Your task to perform on an android device: open a bookmark in the chrome app Image 0: 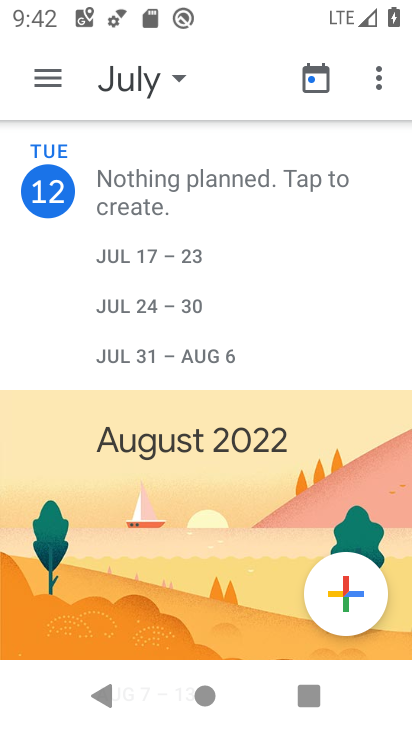
Step 0: click (379, 84)
Your task to perform on an android device: open a bookmark in the chrome app Image 1: 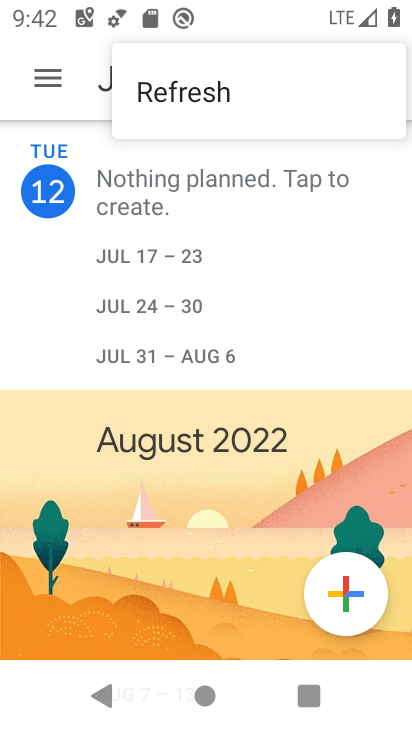
Step 1: press home button
Your task to perform on an android device: open a bookmark in the chrome app Image 2: 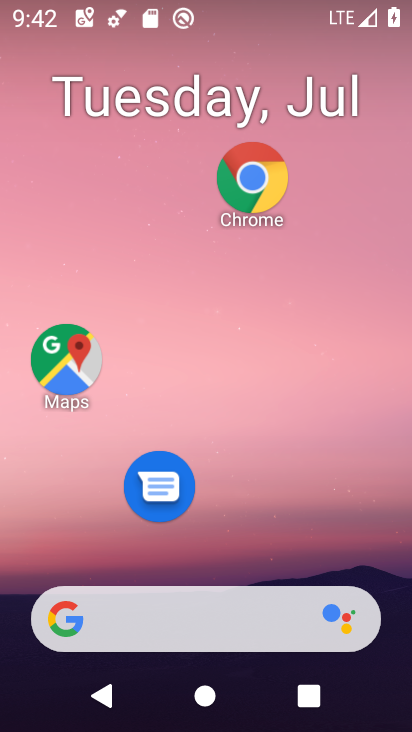
Step 2: drag from (240, 595) to (220, 187)
Your task to perform on an android device: open a bookmark in the chrome app Image 3: 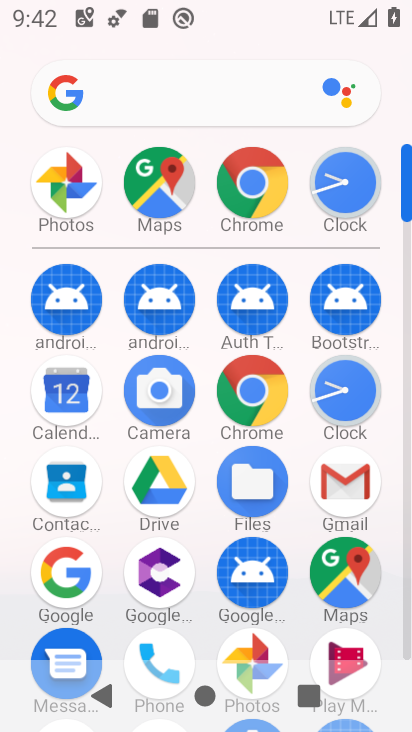
Step 3: click (262, 197)
Your task to perform on an android device: open a bookmark in the chrome app Image 4: 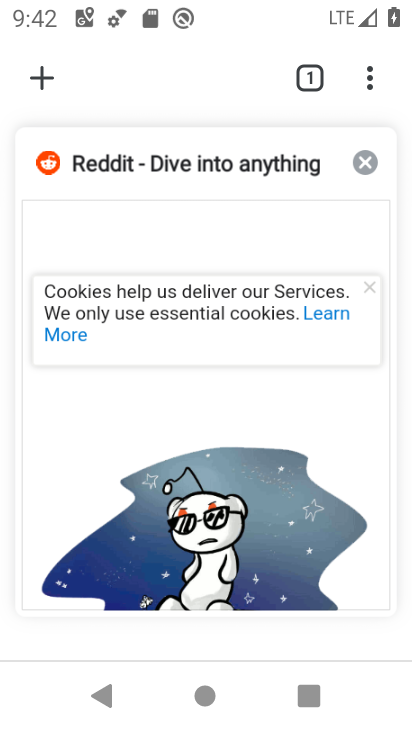
Step 4: click (259, 220)
Your task to perform on an android device: open a bookmark in the chrome app Image 5: 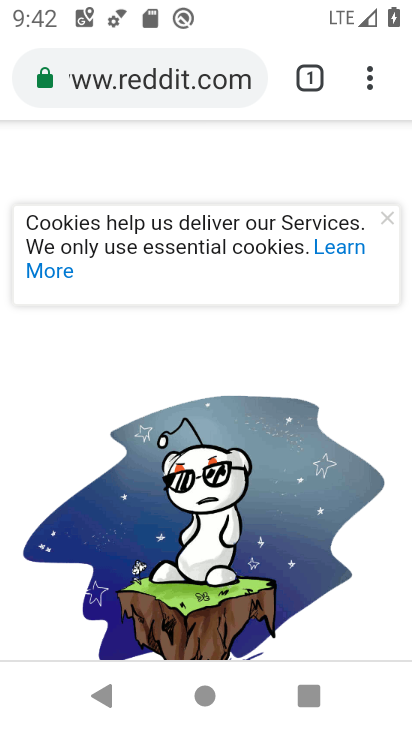
Step 5: click (369, 72)
Your task to perform on an android device: open a bookmark in the chrome app Image 6: 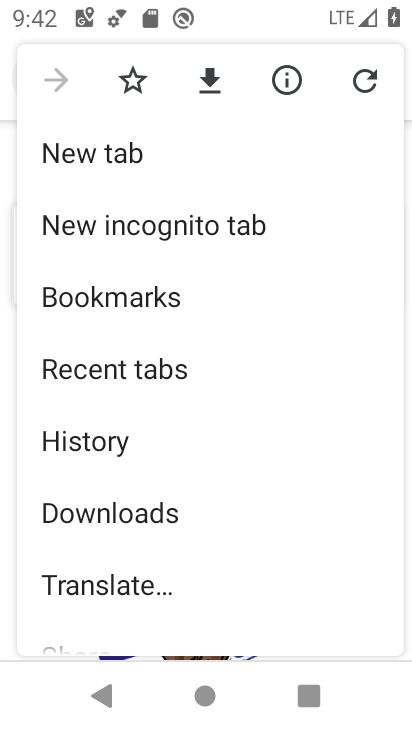
Step 6: click (156, 301)
Your task to perform on an android device: open a bookmark in the chrome app Image 7: 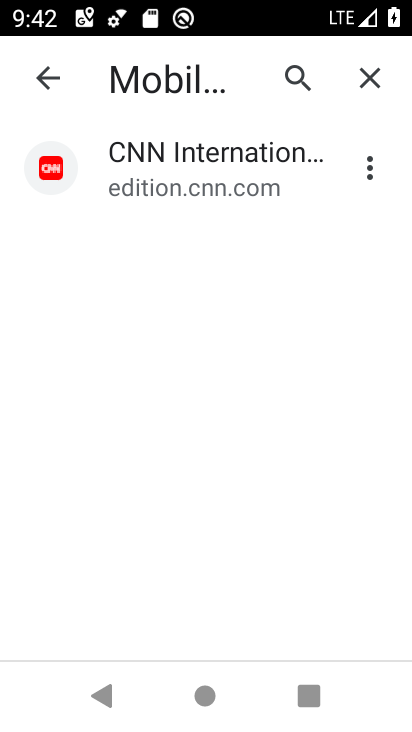
Step 7: click (213, 192)
Your task to perform on an android device: open a bookmark in the chrome app Image 8: 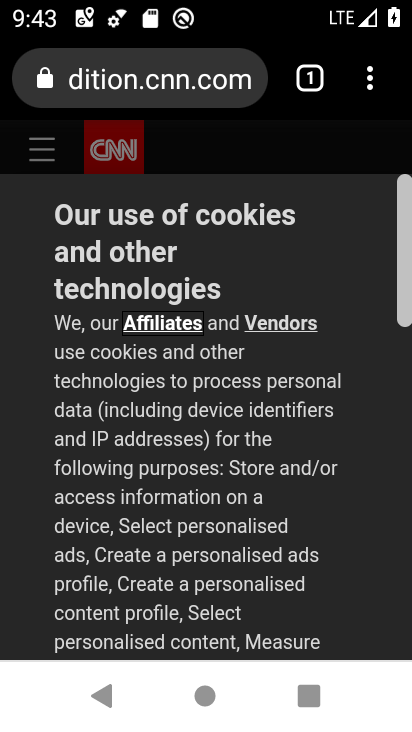
Step 8: task complete